Your task to perform on an android device: see sites visited before in the chrome app Image 0: 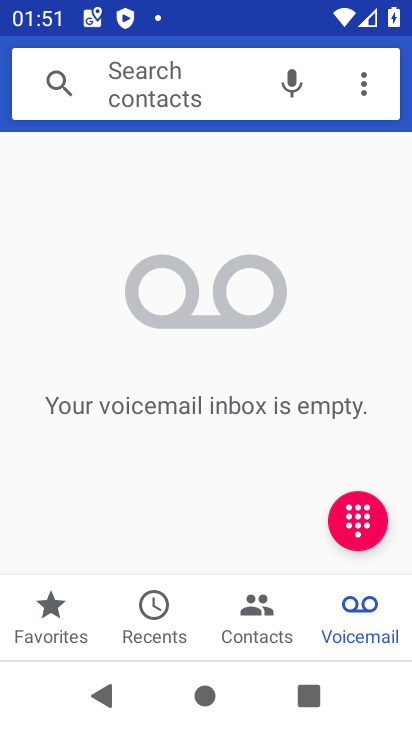
Step 0: press home button
Your task to perform on an android device: see sites visited before in the chrome app Image 1: 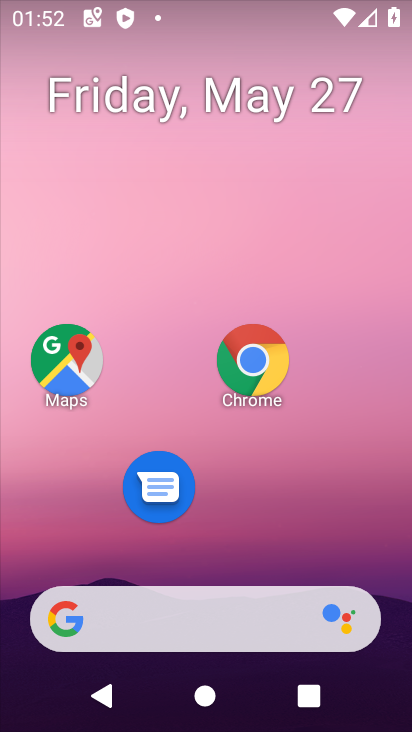
Step 1: click (254, 363)
Your task to perform on an android device: see sites visited before in the chrome app Image 2: 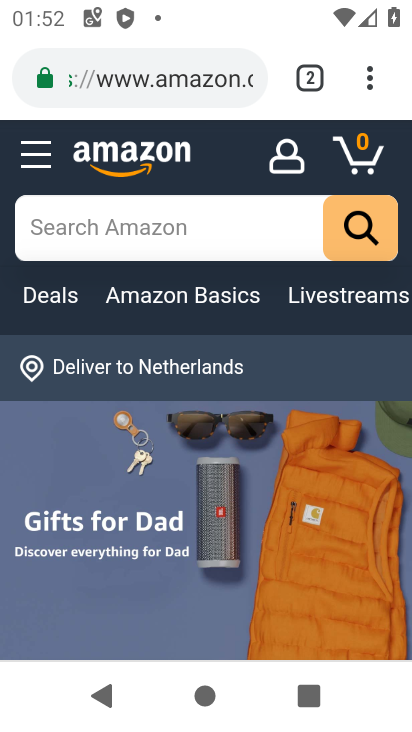
Step 2: click (361, 77)
Your task to perform on an android device: see sites visited before in the chrome app Image 3: 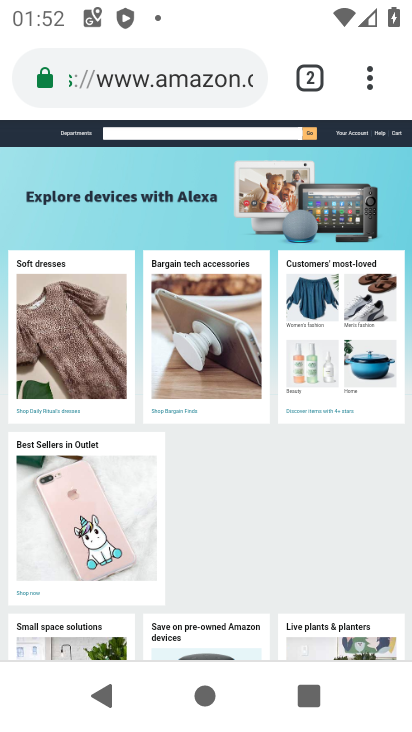
Step 3: click (362, 70)
Your task to perform on an android device: see sites visited before in the chrome app Image 4: 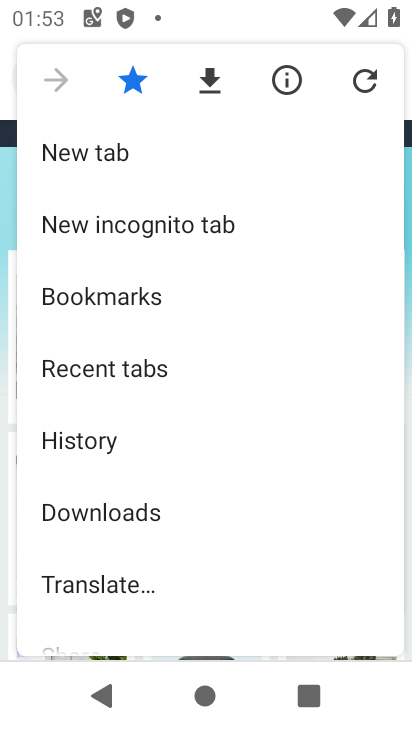
Step 4: click (122, 451)
Your task to perform on an android device: see sites visited before in the chrome app Image 5: 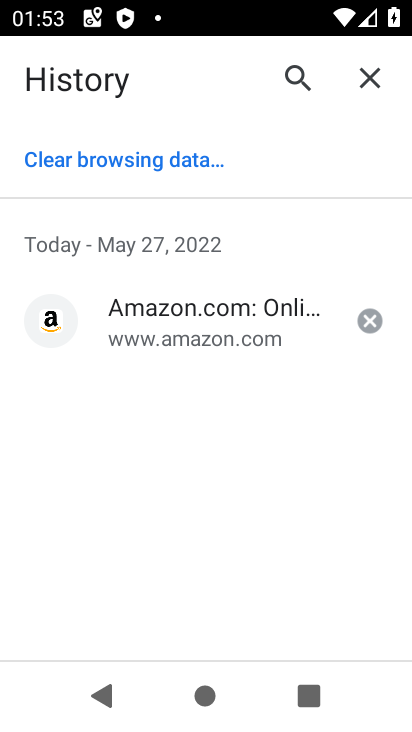
Step 5: task complete